Your task to perform on an android device: Open Reddit.com Image 0: 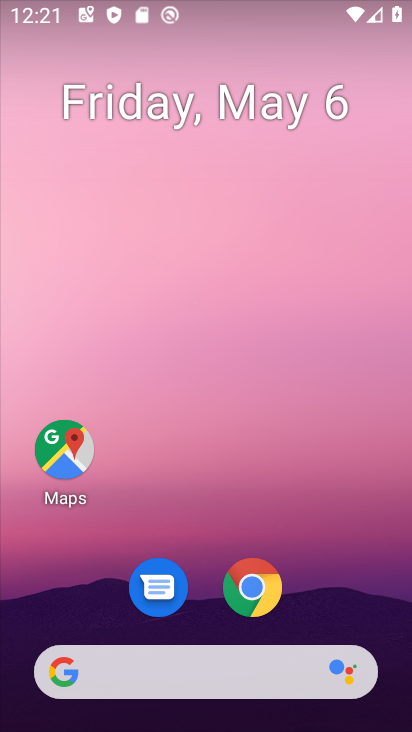
Step 0: click (252, 582)
Your task to perform on an android device: Open Reddit.com Image 1: 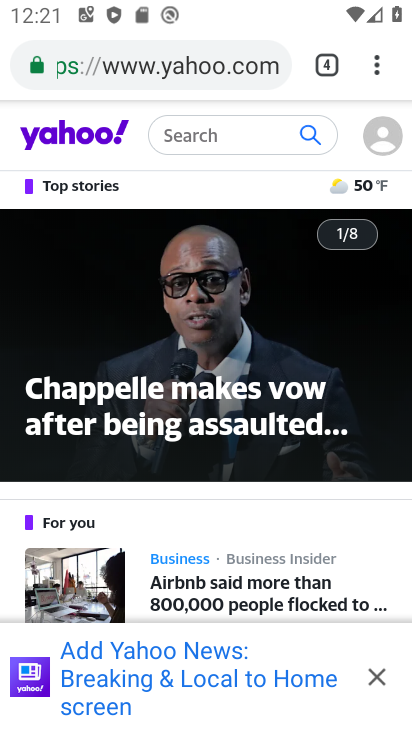
Step 1: click (325, 68)
Your task to perform on an android device: Open Reddit.com Image 2: 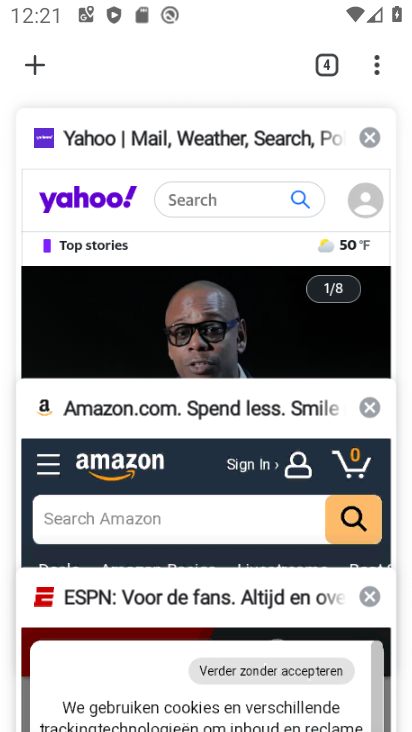
Step 2: click (30, 56)
Your task to perform on an android device: Open Reddit.com Image 3: 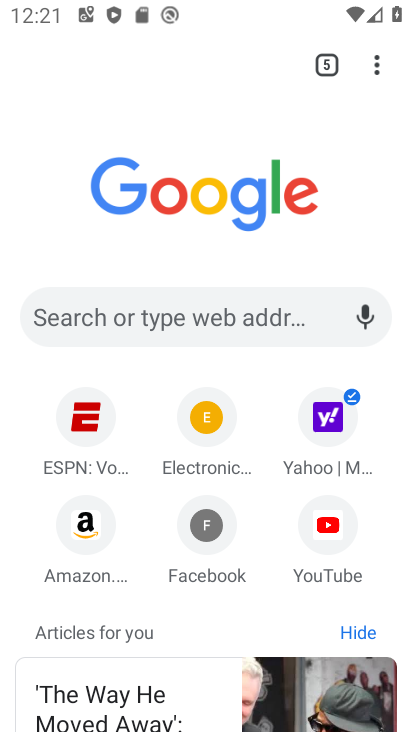
Step 3: click (132, 303)
Your task to perform on an android device: Open Reddit.com Image 4: 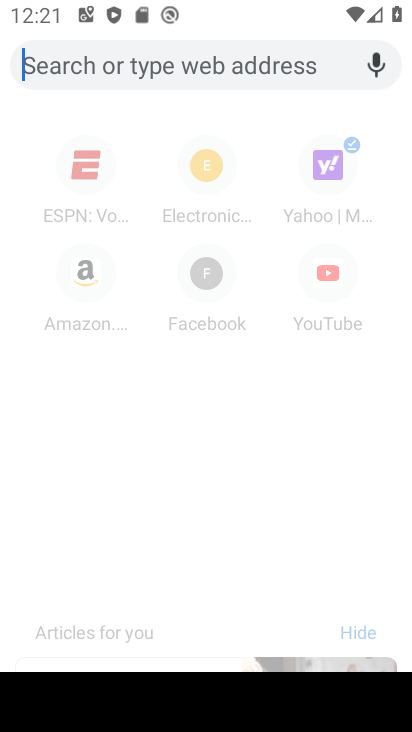
Step 4: type "reddit.com"
Your task to perform on an android device: Open Reddit.com Image 5: 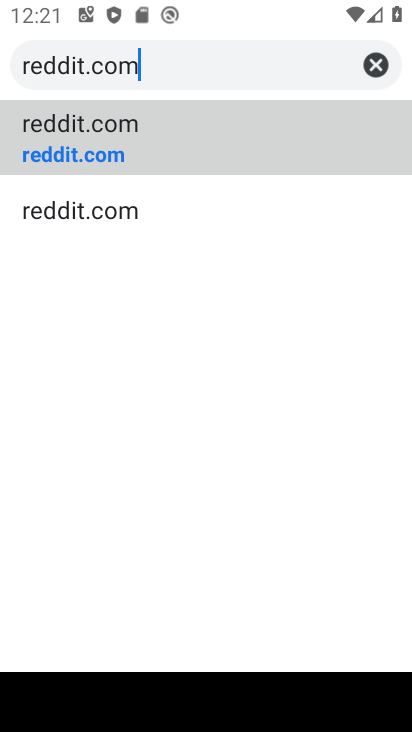
Step 5: click (186, 160)
Your task to perform on an android device: Open Reddit.com Image 6: 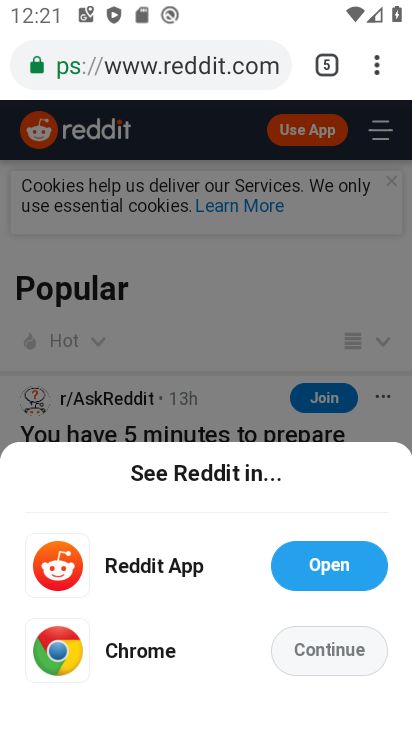
Step 6: task complete